Your task to perform on an android device: open chrome privacy settings Image 0: 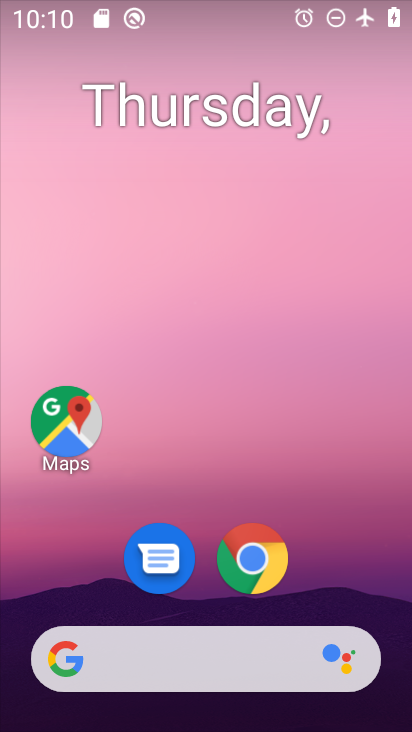
Step 0: click (364, 571)
Your task to perform on an android device: open chrome privacy settings Image 1: 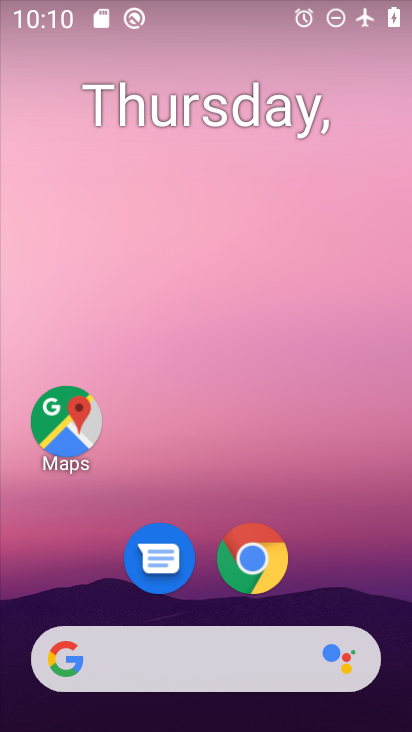
Step 1: click (245, 554)
Your task to perform on an android device: open chrome privacy settings Image 2: 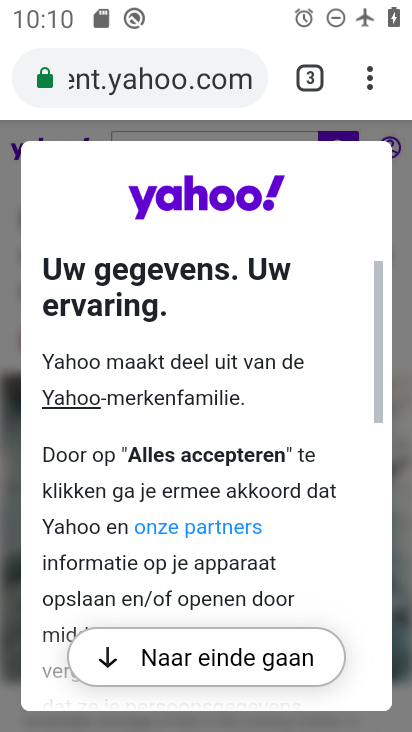
Step 2: click (365, 84)
Your task to perform on an android device: open chrome privacy settings Image 3: 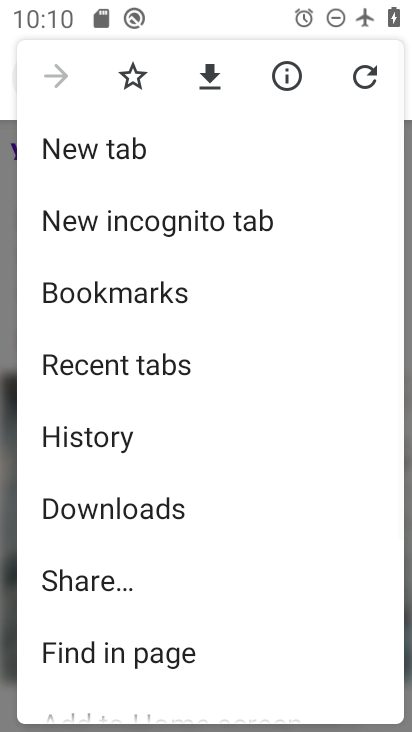
Step 3: drag from (147, 507) to (199, 141)
Your task to perform on an android device: open chrome privacy settings Image 4: 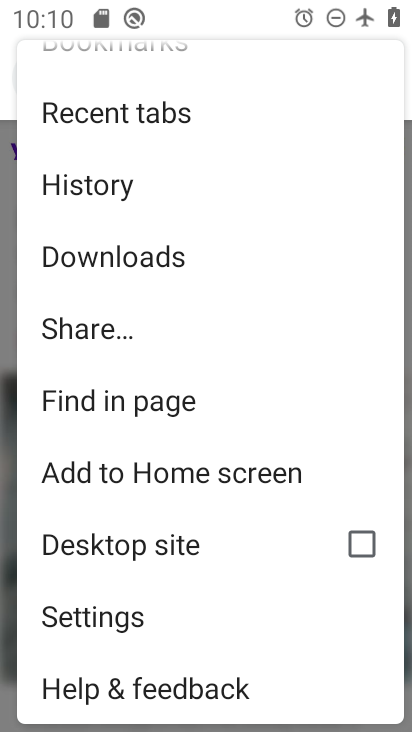
Step 4: click (91, 616)
Your task to perform on an android device: open chrome privacy settings Image 5: 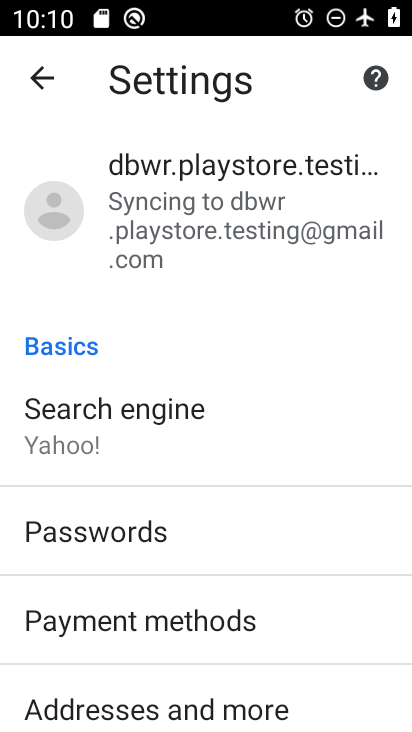
Step 5: drag from (307, 658) to (265, 335)
Your task to perform on an android device: open chrome privacy settings Image 6: 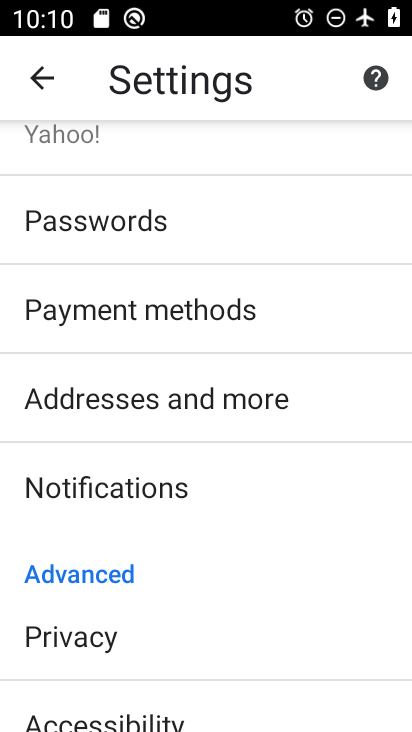
Step 6: click (60, 636)
Your task to perform on an android device: open chrome privacy settings Image 7: 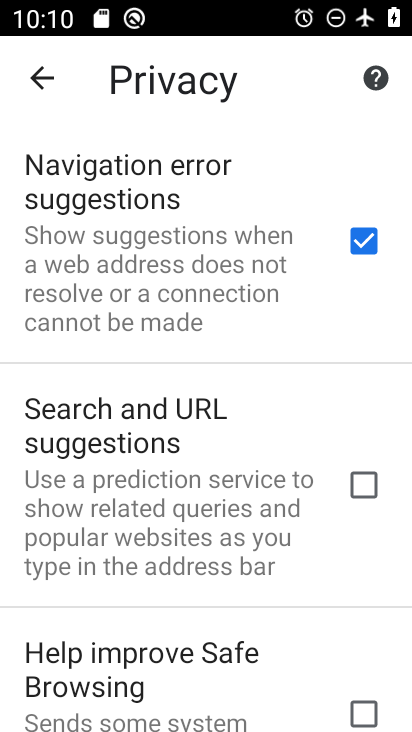
Step 7: task complete